Your task to perform on an android device: move a message to another label in the gmail app Image 0: 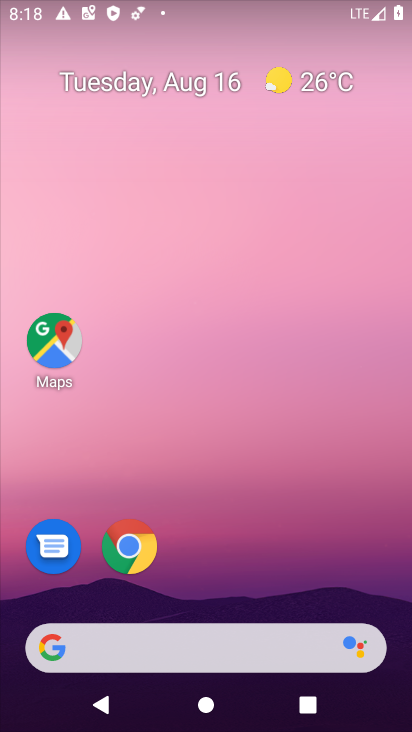
Step 0: drag from (268, 561) to (281, 3)
Your task to perform on an android device: move a message to another label in the gmail app Image 1: 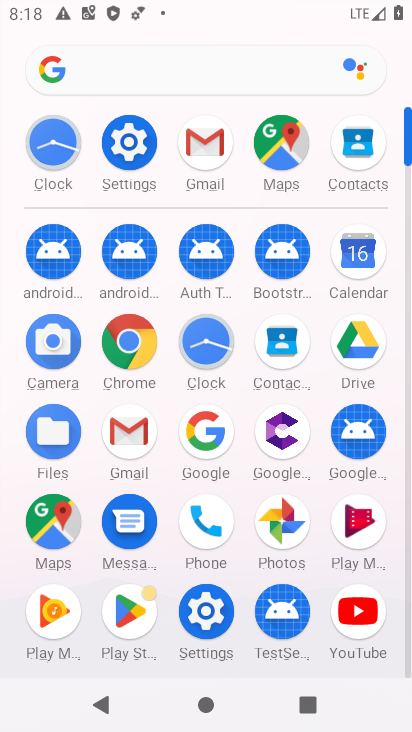
Step 1: click (215, 136)
Your task to perform on an android device: move a message to another label in the gmail app Image 2: 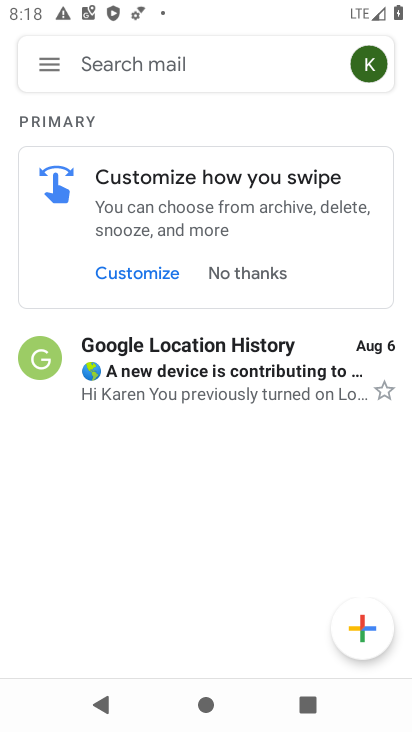
Step 2: click (222, 347)
Your task to perform on an android device: move a message to another label in the gmail app Image 3: 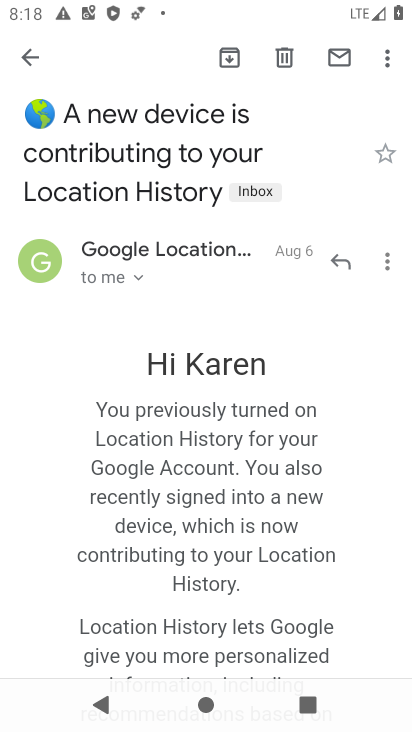
Step 3: click (387, 58)
Your task to perform on an android device: move a message to another label in the gmail app Image 4: 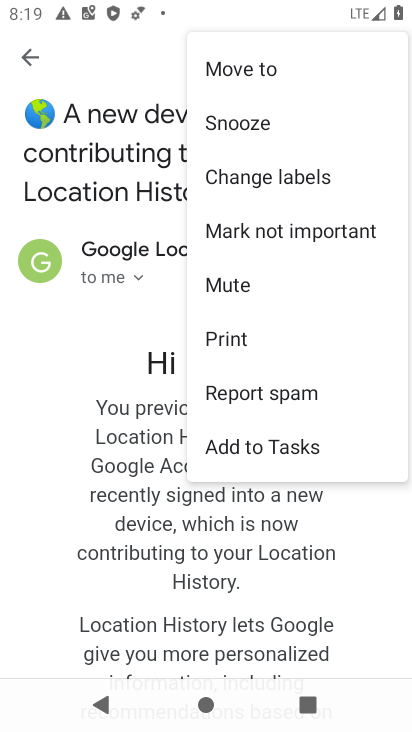
Step 4: click (267, 229)
Your task to perform on an android device: move a message to another label in the gmail app Image 5: 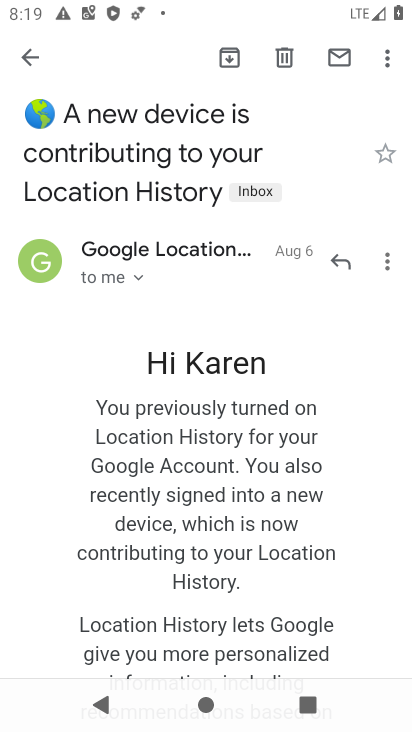
Step 5: task complete